Your task to perform on an android device: check out phone information Image 0: 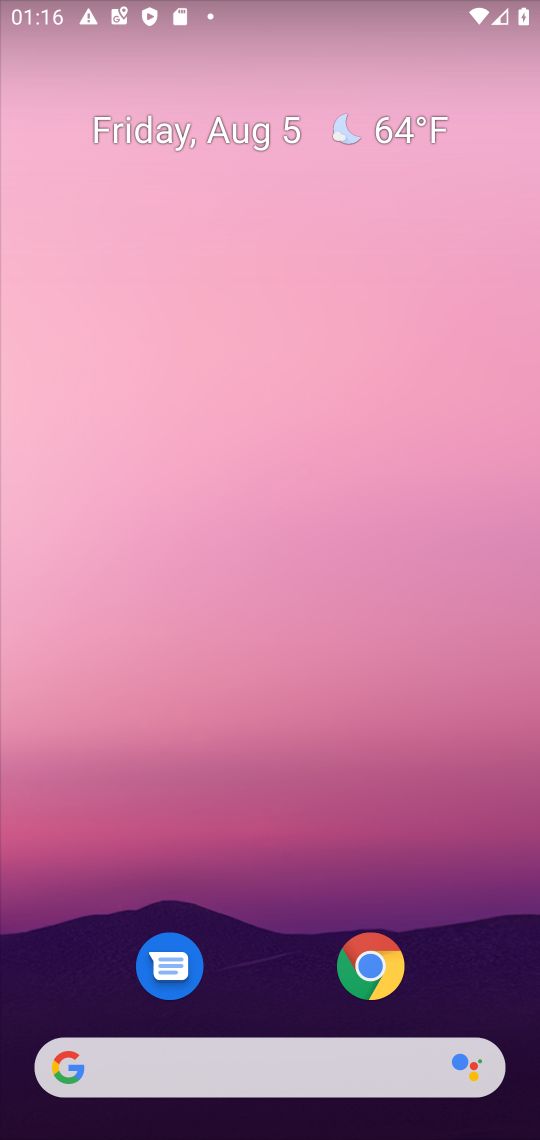
Step 0: drag from (266, 942) to (327, 34)
Your task to perform on an android device: check out phone information Image 1: 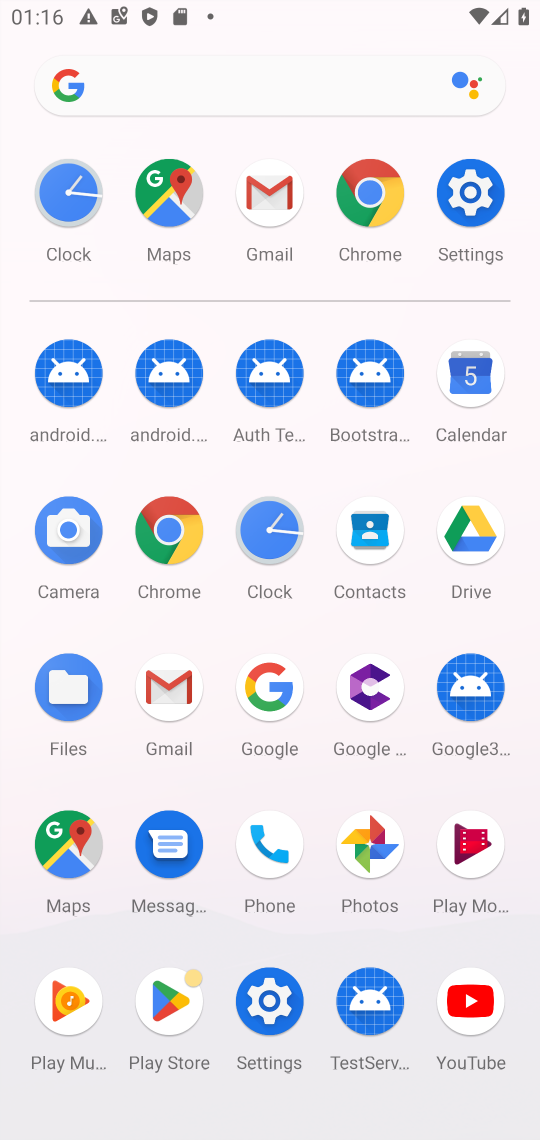
Step 1: click (275, 841)
Your task to perform on an android device: check out phone information Image 2: 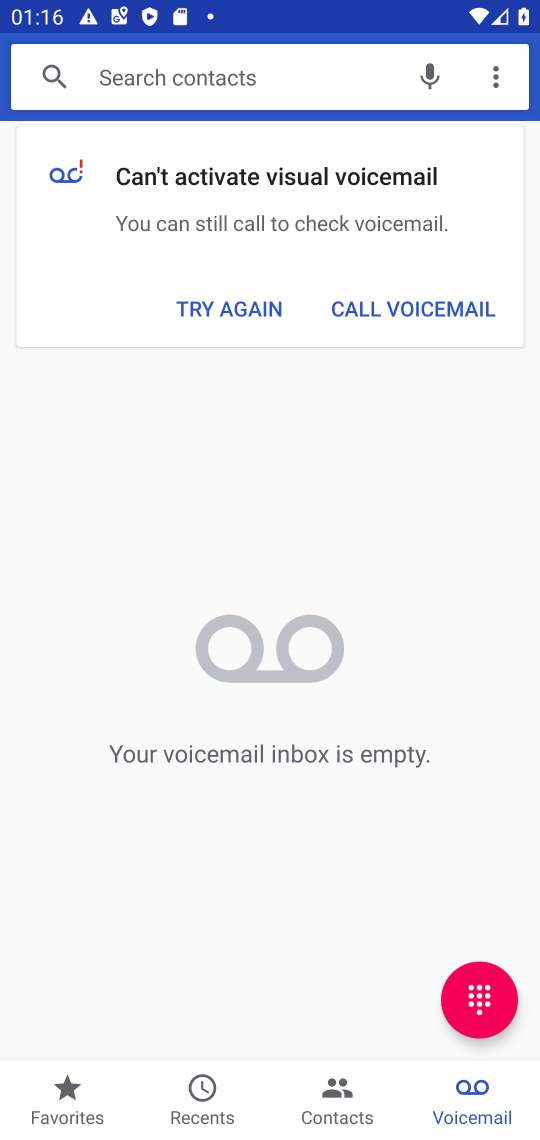
Step 2: click (494, 63)
Your task to perform on an android device: check out phone information Image 3: 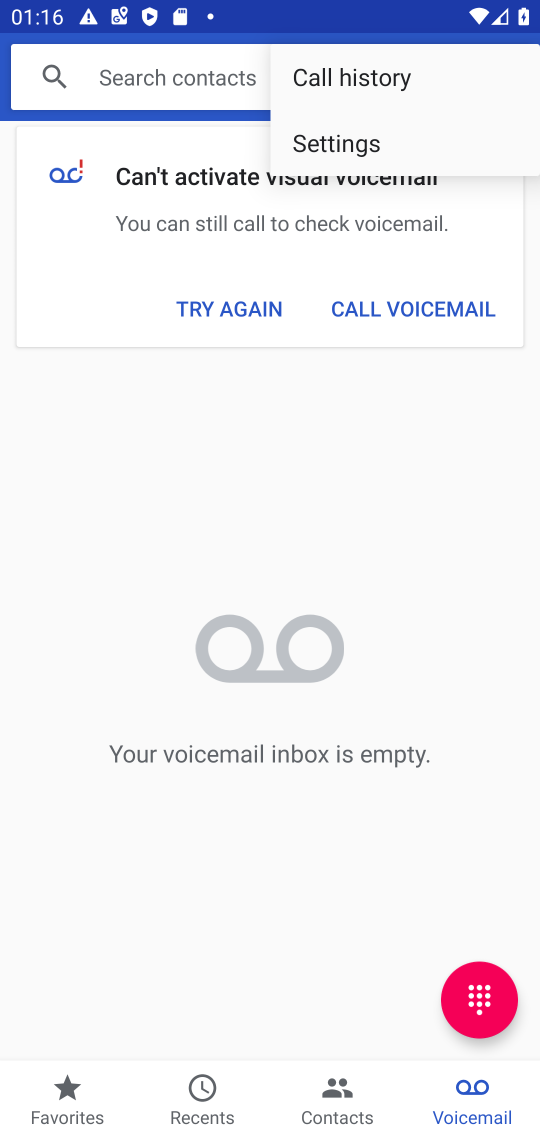
Step 3: click (414, 134)
Your task to perform on an android device: check out phone information Image 4: 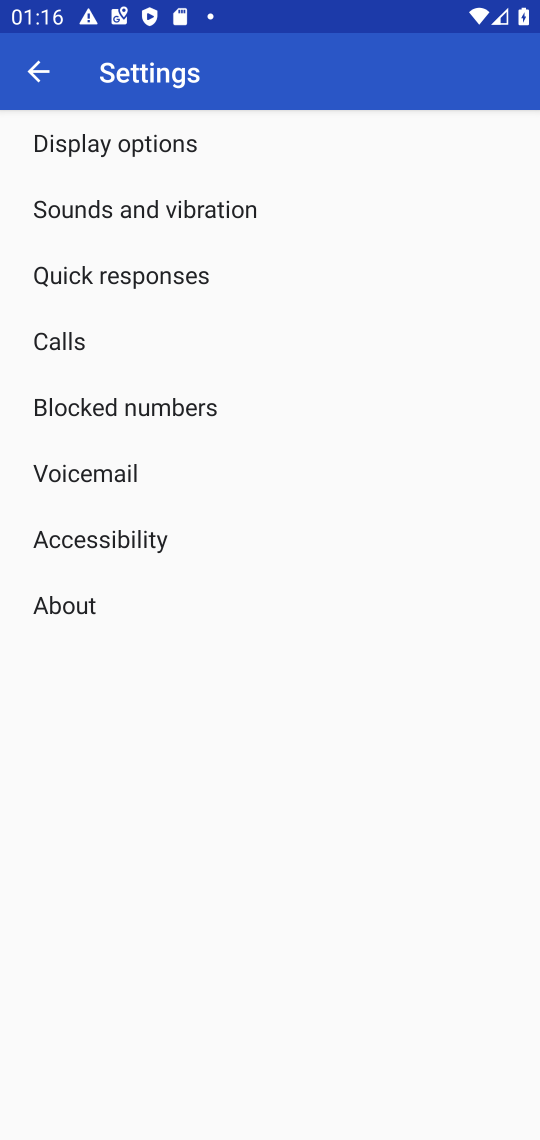
Step 4: click (55, 597)
Your task to perform on an android device: check out phone information Image 5: 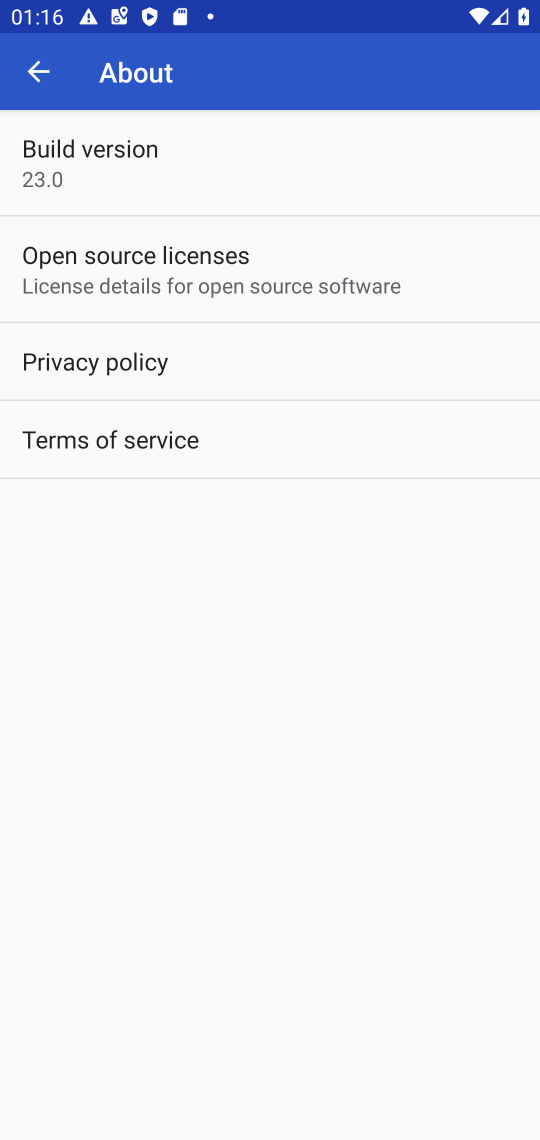
Step 5: task complete